Your task to perform on an android device: Open ESPN.com Image 0: 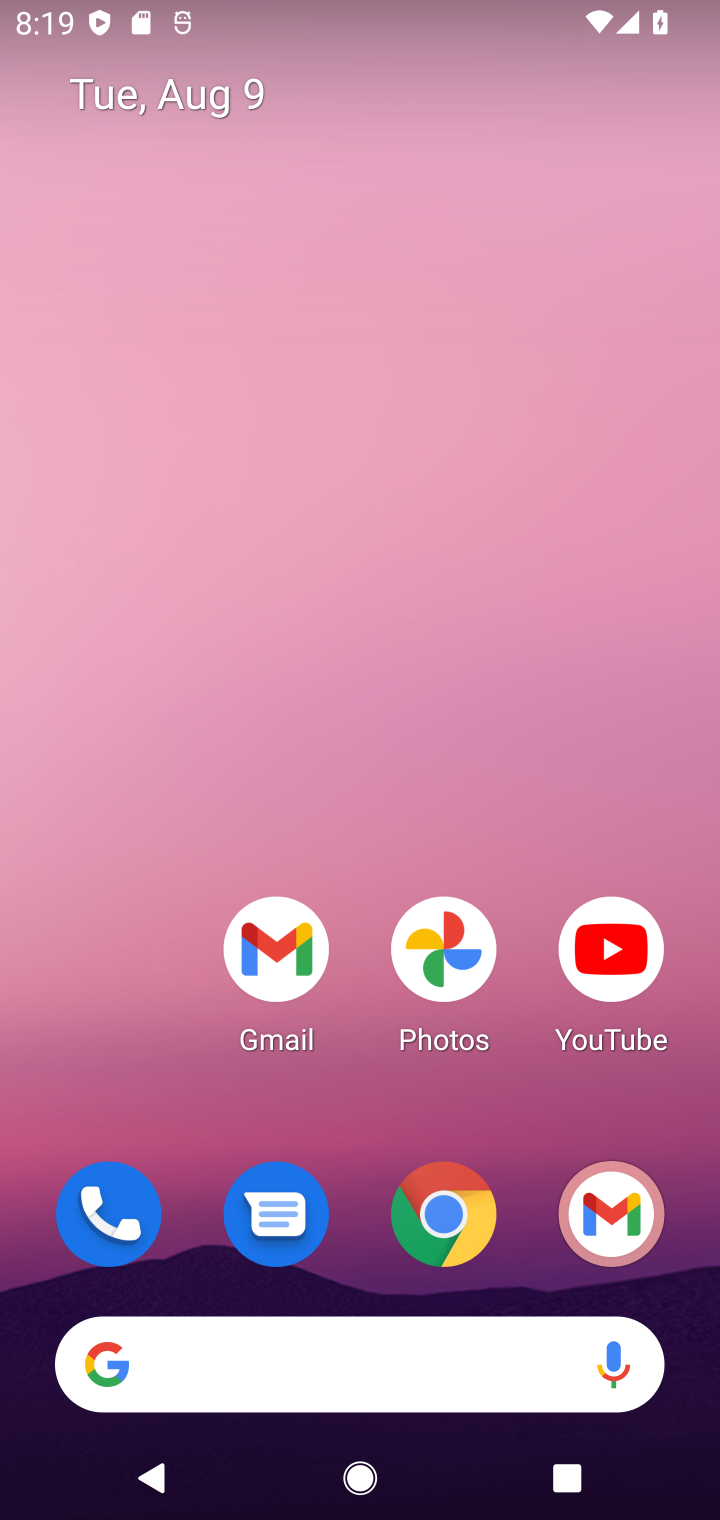
Step 0: click (261, 1373)
Your task to perform on an android device: Open ESPN.com Image 1: 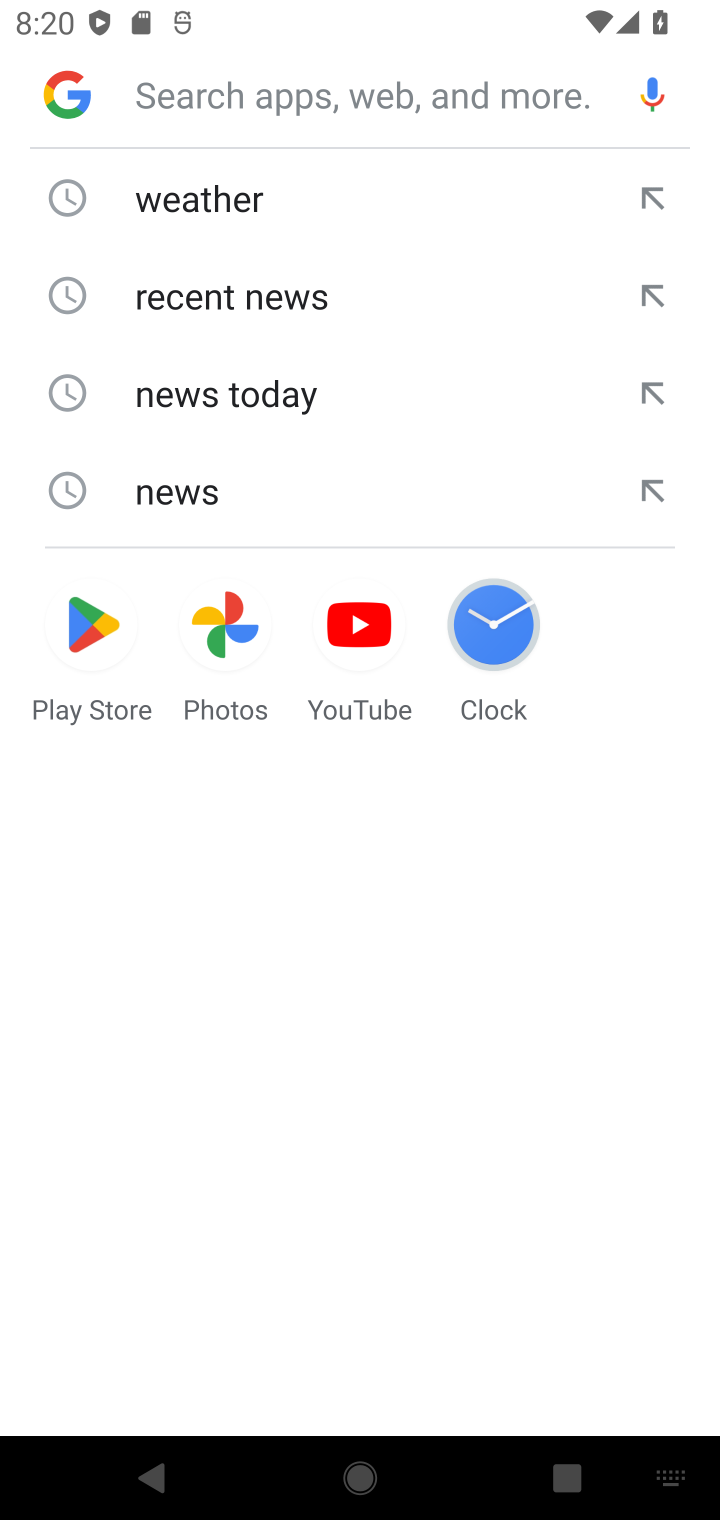
Step 1: type "ESPN.com"
Your task to perform on an android device: Open ESPN.com Image 2: 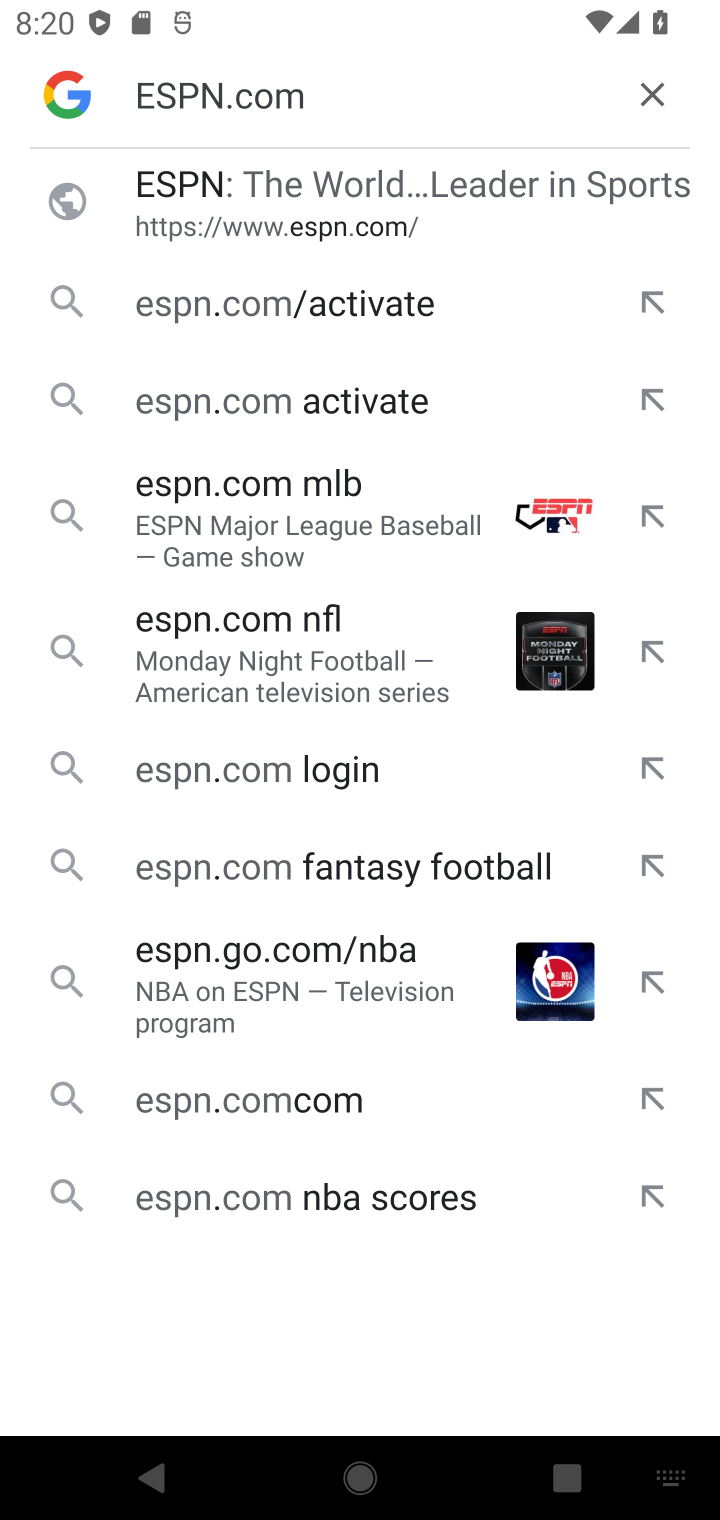
Step 2: click (201, 171)
Your task to perform on an android device: Open ESPN.com Image 3: 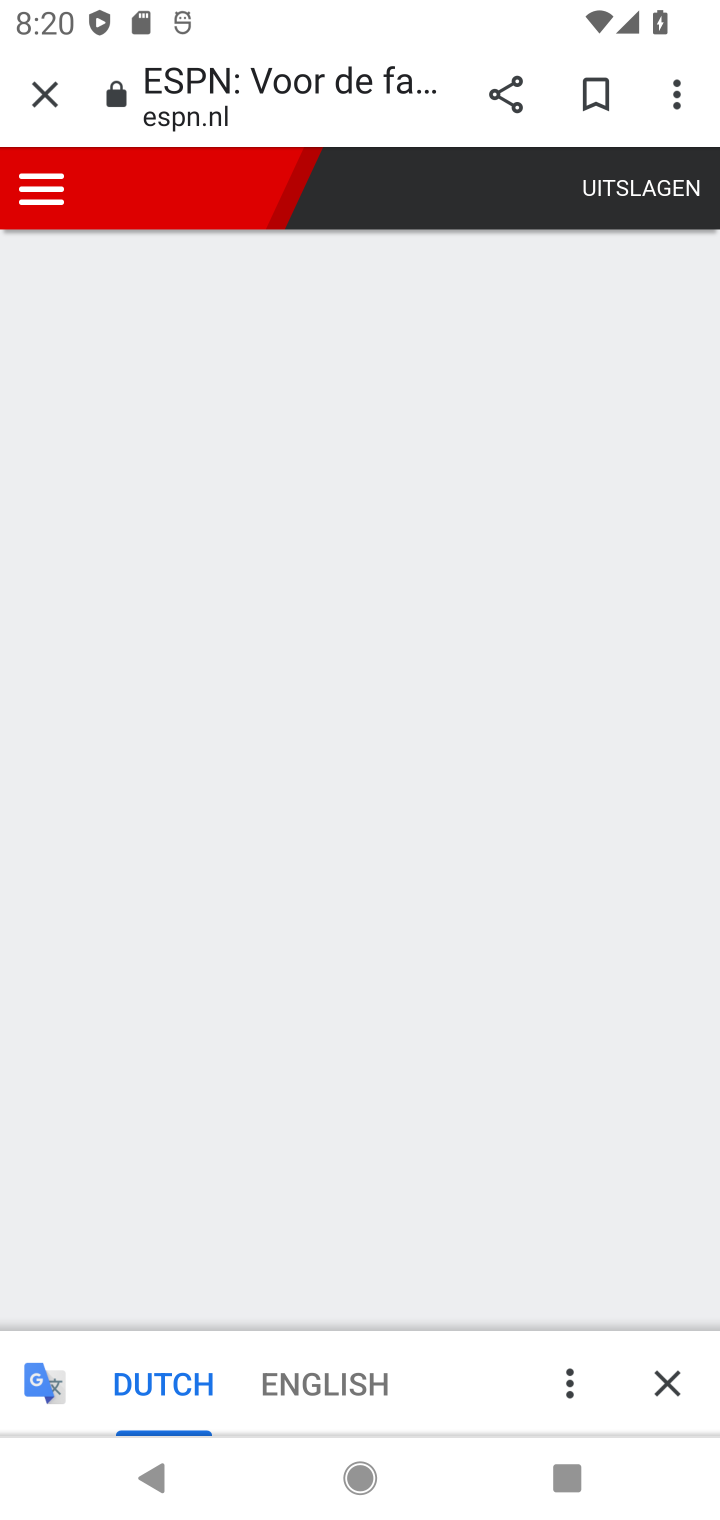
Step 3: task complete